Your task to perform on an android device: change the clock display to show seconds Image 0: 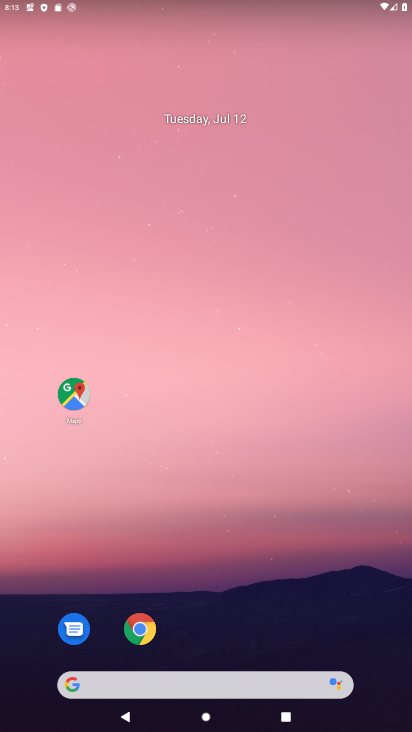
Step 0: drag from (198, 668) to (240, 154)
Your task to perform on an android device: change the clock display to show seconds Image 1: 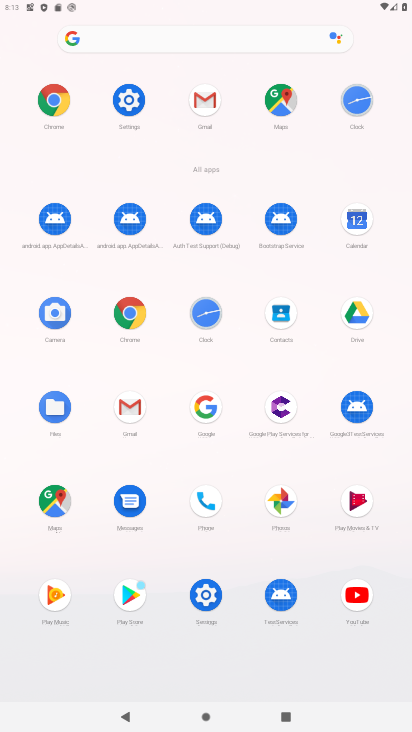
Step 1: click (202, 314)
Your task to perform on an android device: change the clock display to show seconds Image 2: 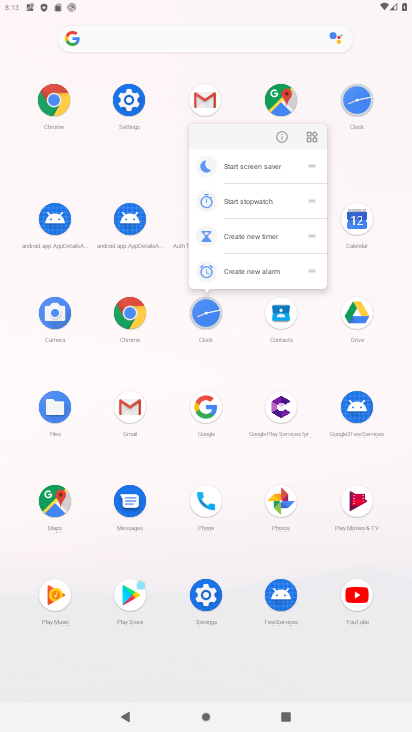
Step 2: click (199, 312)
Your task to perform on an android device: change the clock display to show seconds Image 3: 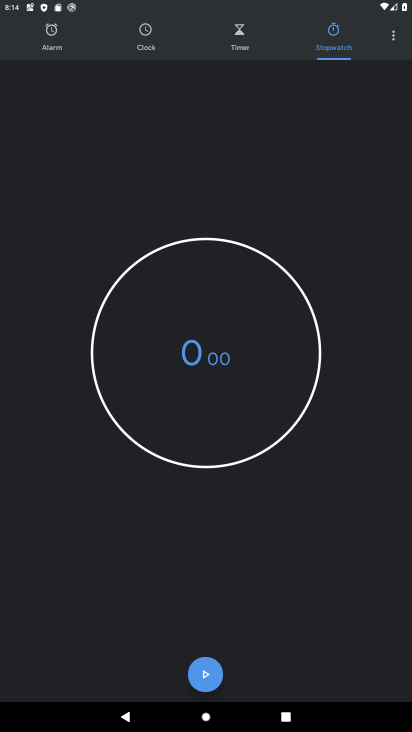
Step 3: click (393, 38)
Your task to perform on an android device: change the clock display to show seconds Image 4: 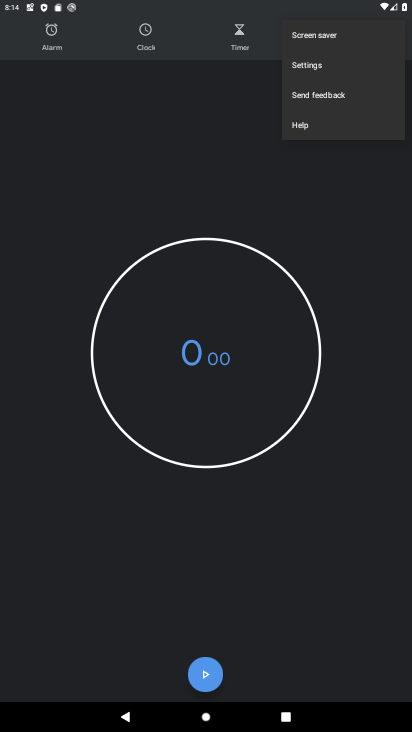
Step 4: click (334, 59)
Your task to perform on an android device: change the clock display to show seconds Image 5: 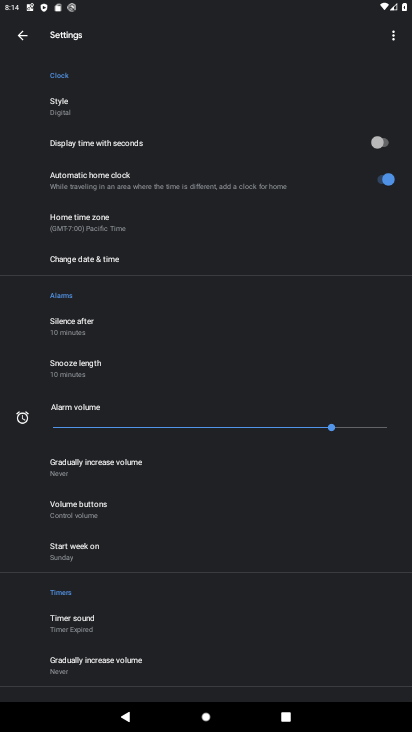
Step 5: click (385, 143)
Your task to perform on an android device: change the clock display to show seconds Image 6: 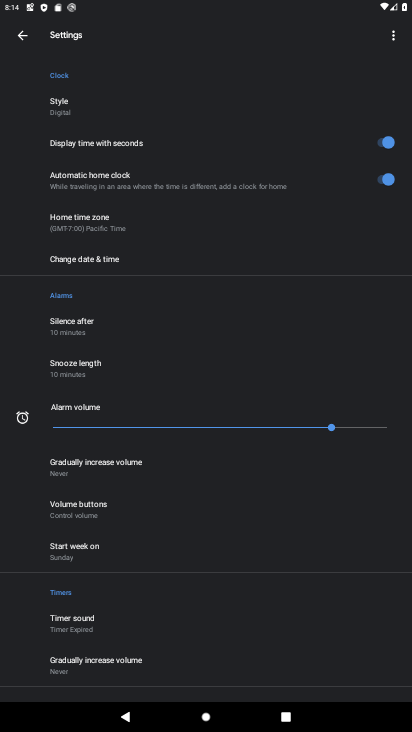
Step 6: task complete